Your task to perform on an android device: turn off smart reply in the gmail app Image 0: 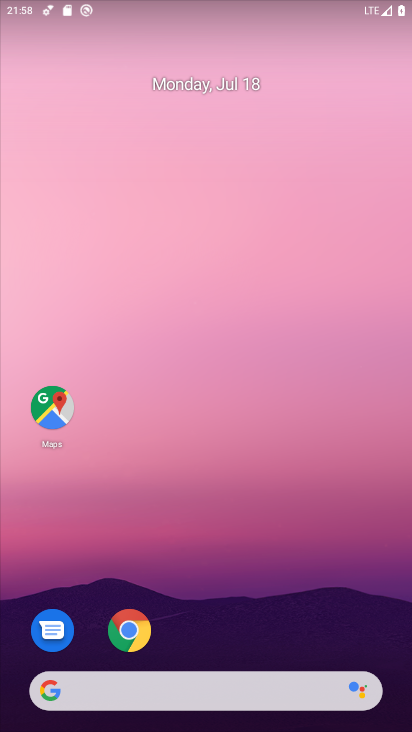
Step 0: drag from (272, 567) to (329, 36)
Your task to perform on an android device: turn off smart reply in the gmail app Image 1: 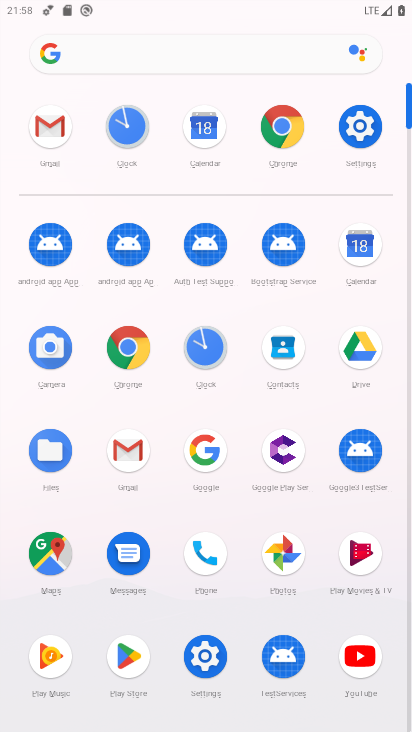
Step 1: click (44, 123)
Your task to perform on an android device: turn off smart reply in the gmail app Image 2: 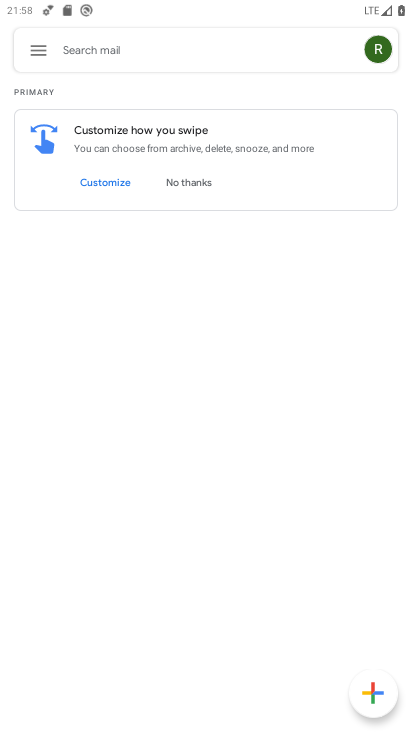
Step 2: click (32, 44)
Your task to perform on an android device: turn off smart reply in the gmail app Image 3: 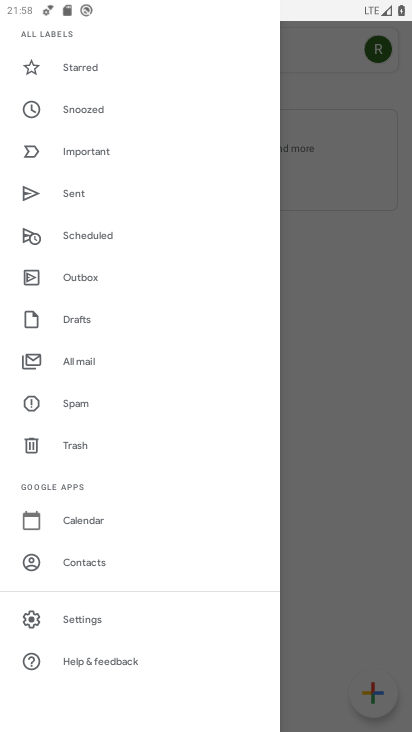
Step 3: click (120, 622)
Your task to perform on an android device: turn off smart reply in the gmail app Image 4: 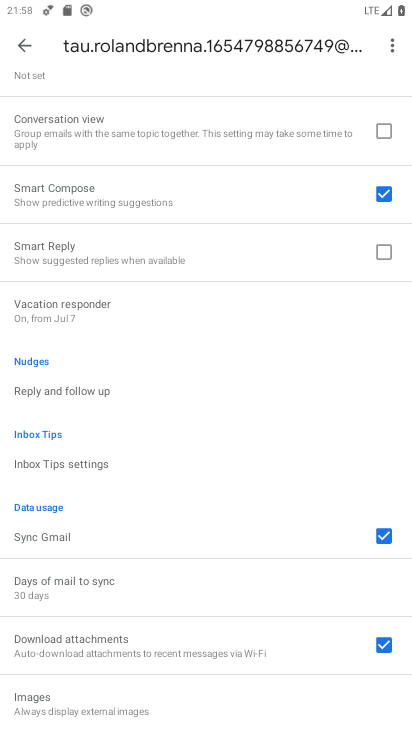
Step 4: task complete